Your task to perform on an android device: turn off translation in the chrome app Image 0: 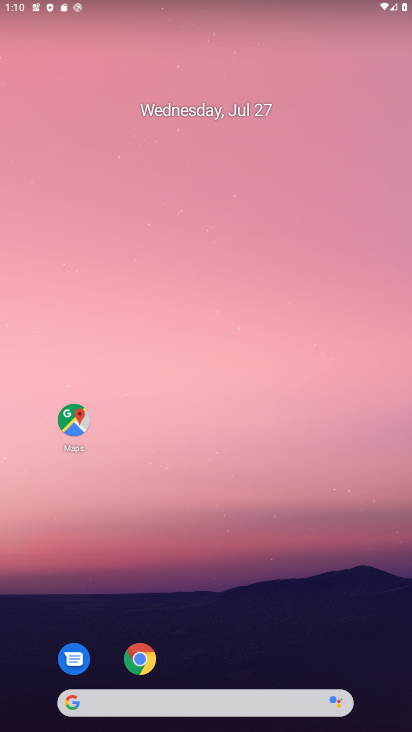
Step 0: drag from (248, 512) to (178, 0)
Your task to perform on an android device: turn off translation in the chrome app Image 1: 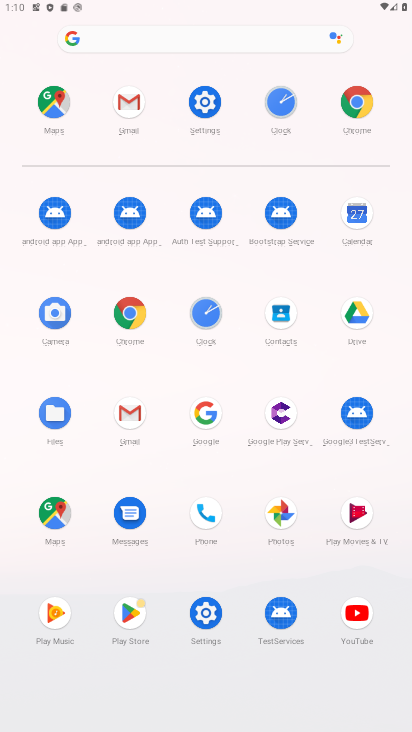
Step 1: click (355, 101)
Your task to perform on an android device: turn off translation in the chrome app Image 2: 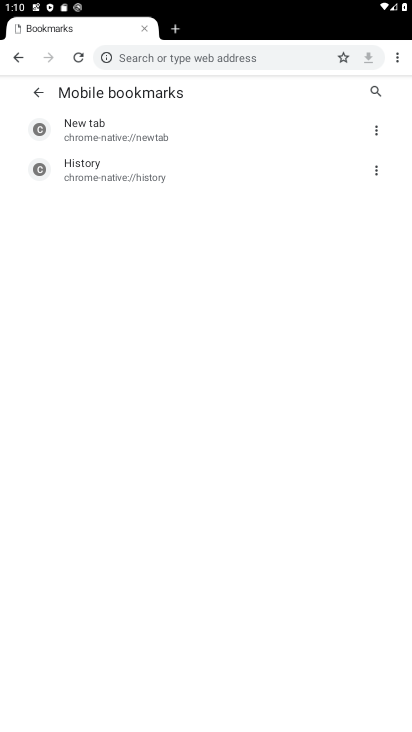
Step 2: drag from (395, 56) to (286, 266)
Your task to perform on an android device: turn off translation in the chrome app Image 3: 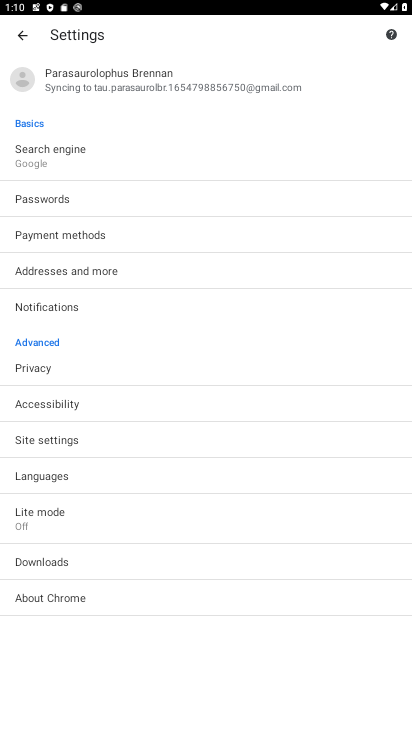
Step 3: click (95, 480)
Your task to perform on an android device: turn off translation in the chrome app Image 4: 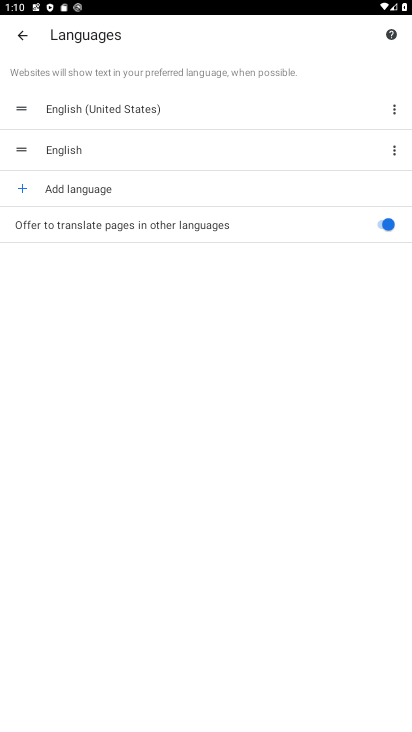
Step 4: click (375, 215)
Your task to perform on an android device: turn off translation in the chrome app Image 5: 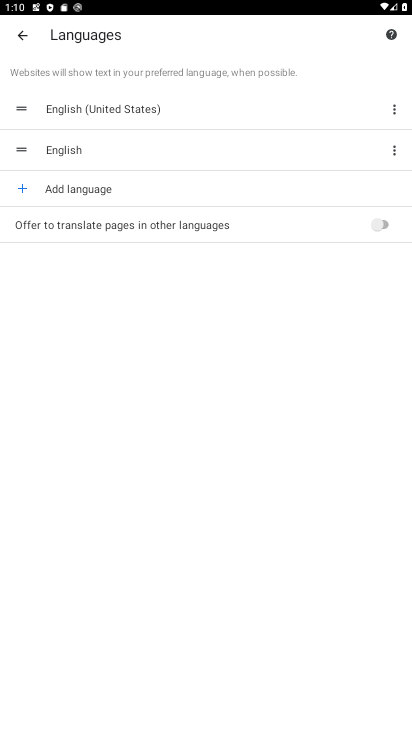
Step 5: task complete